Your task to perform on an android device: Show the shopping cart on costco.com. Search for "razer blackwidow" on costco.com, select the first entry, and add it to the cart. Image 0: 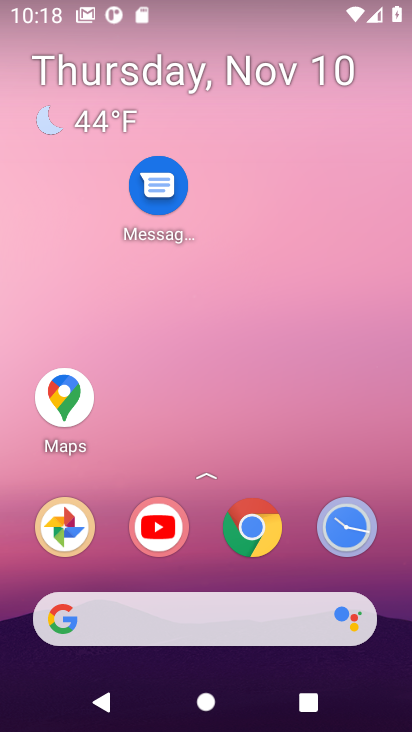
Step 0: drag from (204, 587) to (190, 54)
Your task to perform on an android device: Show the shopping cart on costco.com. Search for "razer blackwidow" on costco.com, select the first entry, and add it to the cart. Image 1: 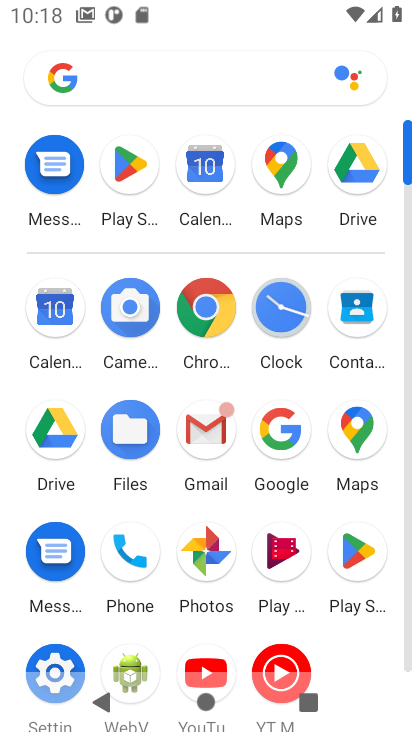
Step 1: click (208, 298)
Your task to perform on an android device: Show the shopping cart on costco.com. Search for "razer blackwidow" on costco.com, select the first entry, and add it to the cart. Image 2: 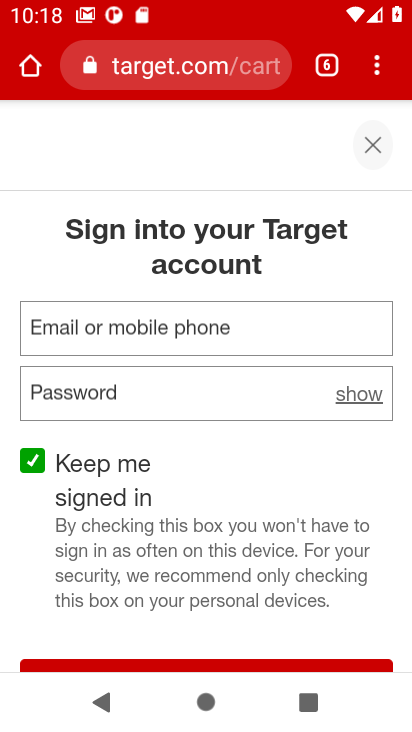
Step 2: click (182, 59)
Your task to perform on an android device: Show the shopping cart on costco.com. Search for "razer blackwidow" on costco.com, select the first entry, and add it to the cart. Image 3: 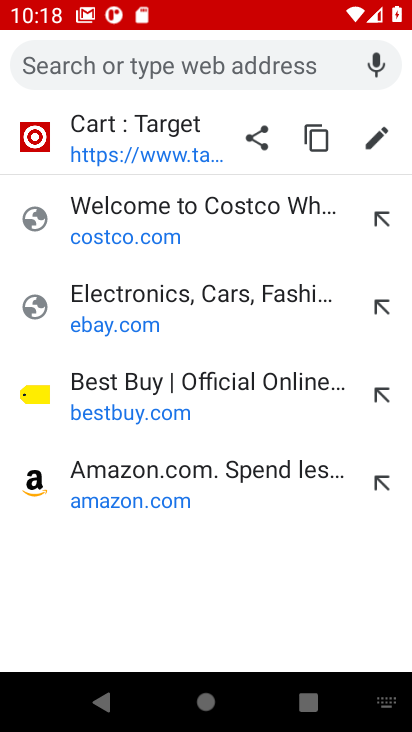
Step 3: type "costco.com"
Your task to perform on an android device: Show the shopping cart on costco.com. Search for "razer blackwidow" on costco.com, select the first entry, and add it to the cart. Image 4: 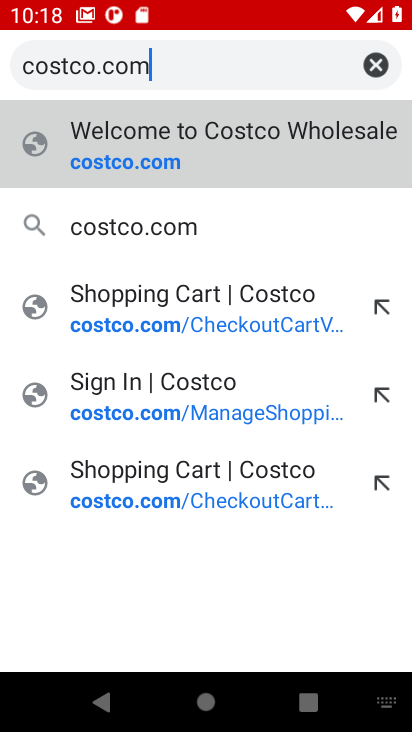
Step 4: press enter
Your task to perform on an android device: Show the shopping cart on costco.com. Search for "razer blackwidow" on costco.com, select the first entry, and add it to the cart. Image 5: 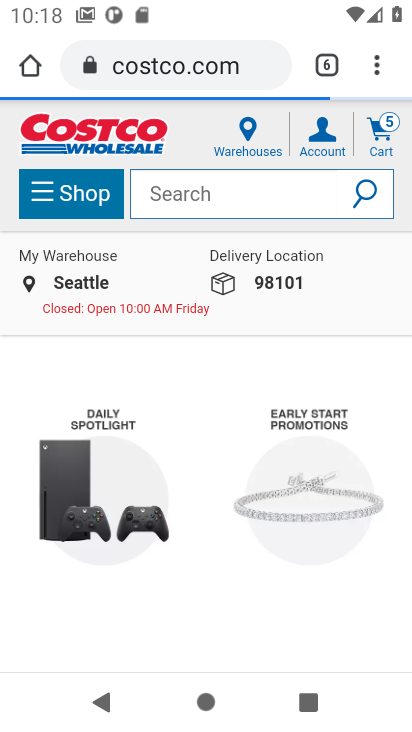
Step 5: click (187, 194)
Your task to perform on an android device: Show the shopping cart on costco.com. Search for "razer blackwidow" on costco.com, select the first entry, and add it to the cart. Image 6: 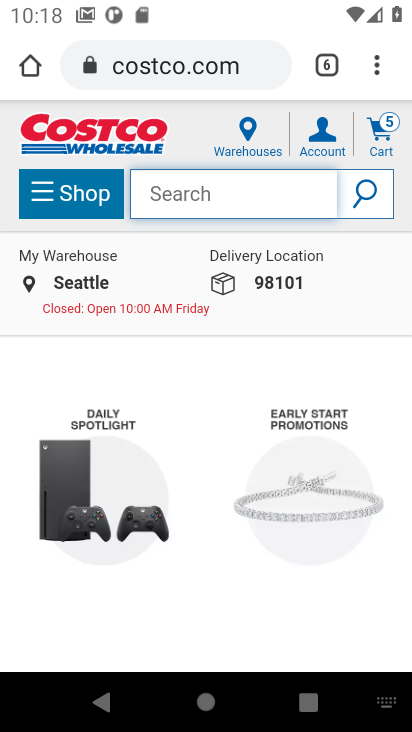
Step 6: type "razer blackwidow"
Your task to perform on an android device: Show the shopping cart on costco.com. Search for "razer blackwidow" on costco.com, select the first entry, and add it to the cart. Image 7: 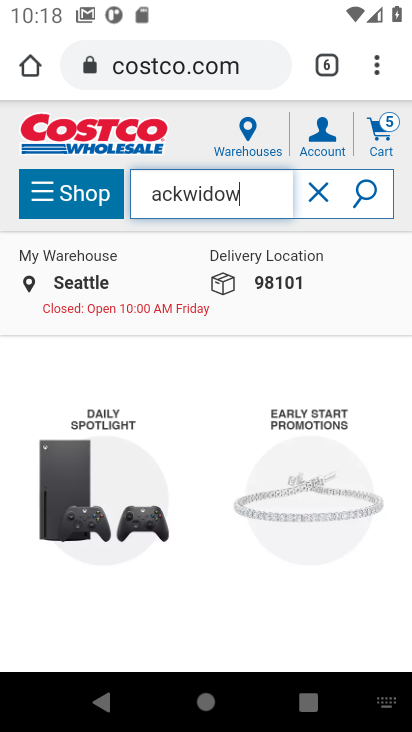
Step 7: press enter
Your task to perform on an android device: Show the shopping cart on costco.com. Search for "razer blackwidow" on costco.com, select the first entry, and add it to the cart. Image 8: 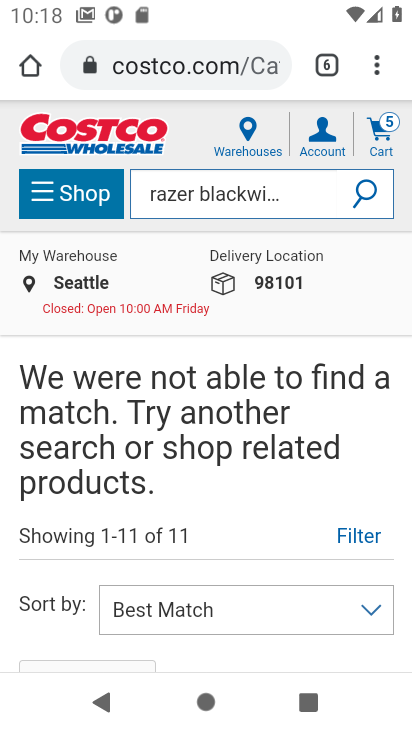
Step 8: drag from (289, 506) to (264, 266)
Your task to perform on an android device: Show the shopping cart on costco.com. Search for "razer blackwidow" on costco.com, select the first entry, and add it to the cart. Image 9: 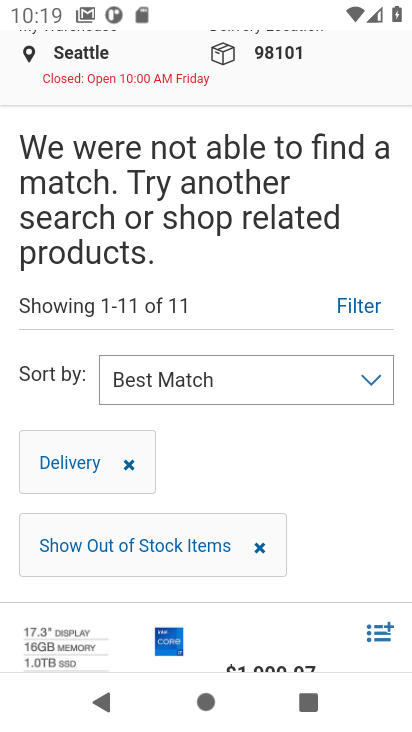
Step 9: drag from (170, 527) to (197, 185)
Your task to perform on an android device: Show the shopping cart on costco.com. Search for "razer blackwidow" on costco.com, select the first entry, and add it to the cart. Image 10: 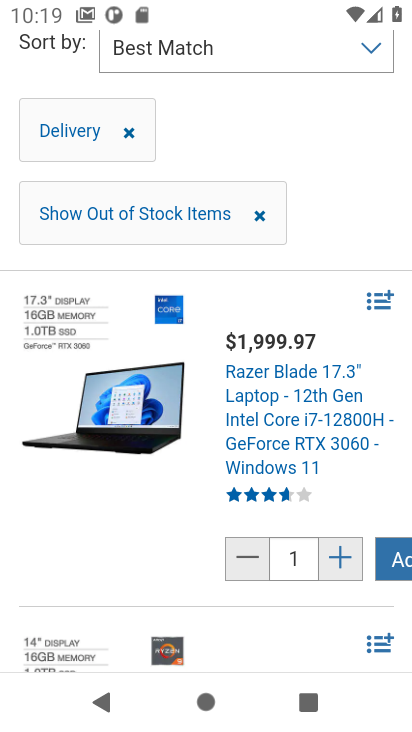
Step 10: click (401, 555)
Your task to perform on an android device: Show the shopping cart on costco.com. Search for "razer blackwidow" on costco.com, select the first entry, and add it to the cart. Image 11: 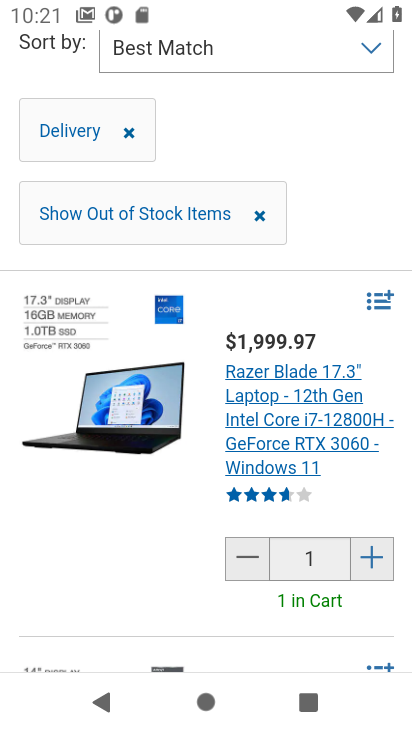
Step 11: task complete